Your task to perform on an android device: Search for vegetarian restaurants on Maps Image 0: 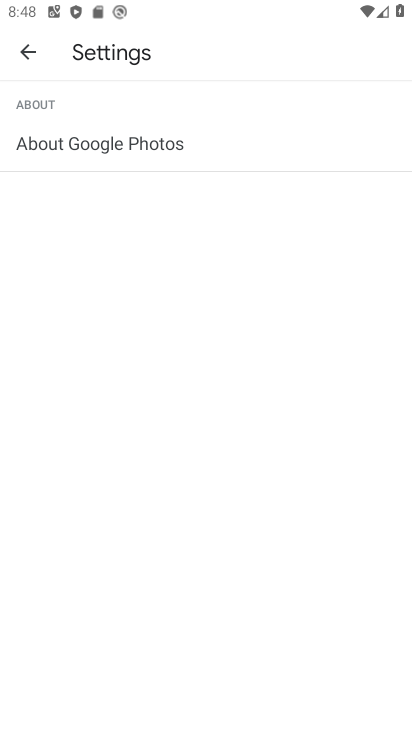
Step 0: press home button
Your task to perform on an android device: Search for vegetarian restaurants on Maps Image 1: 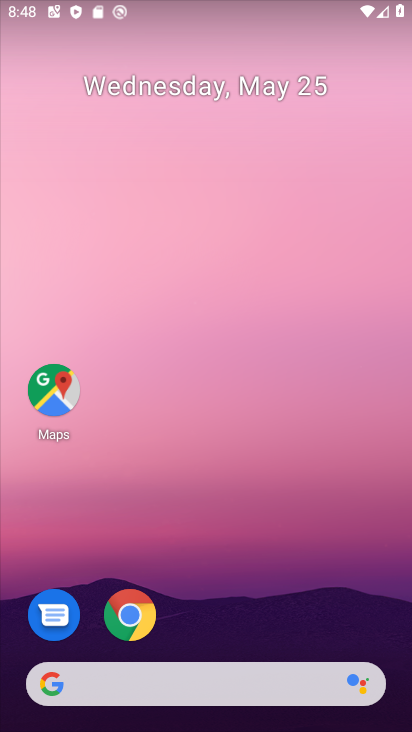
Step 1: click (49, 383)
Your task to perform on an android device: Search for vegetarian restaurants on Maps Image 2: 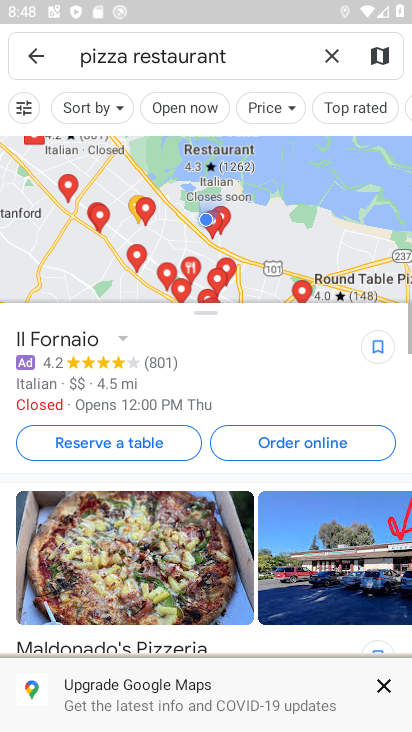
Step 2: click (338, 57)
Your task to perform on an android device: Search for vegetarian restaurants on Maps Image 3: 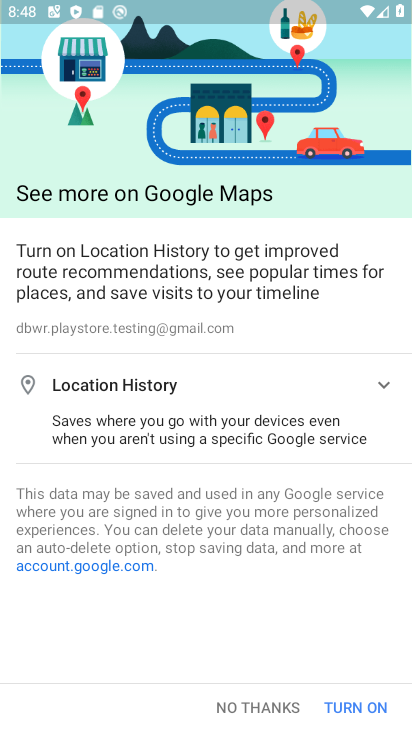
Step 3: click (255, 711)
Your task to perform on an android device: Search for vegetarian restaurants on Maps Image 4: 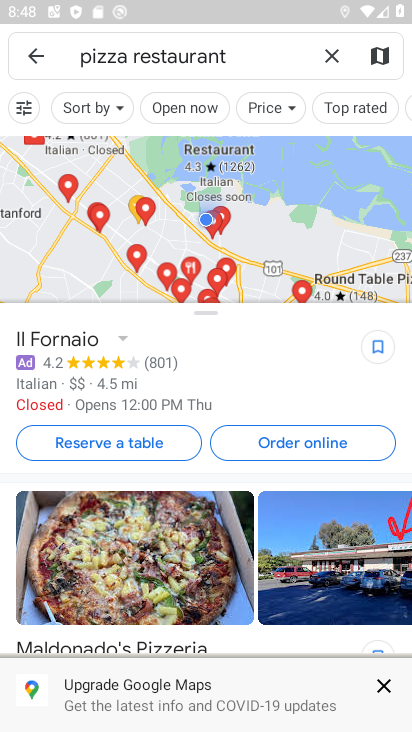
Step 4: click (337, 49)
Your task to perform on an android device: Search for vegetarian restaurants on Maps Image 5: 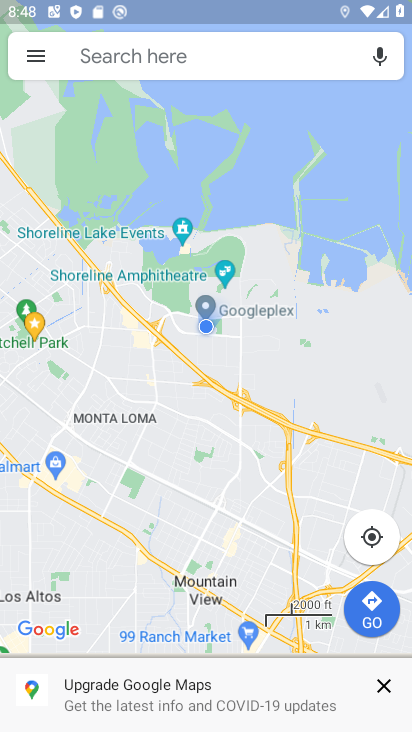
Step 5: click (269, 62)
Your task to perform on an android device: Search for vegetarian restaurants on Maps Image 6: 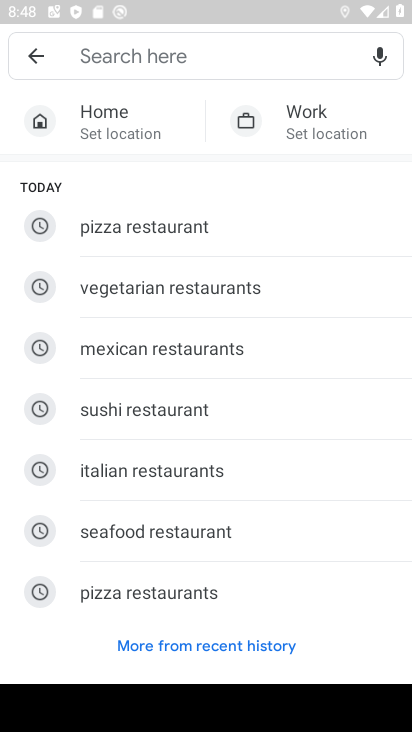
Step 6: click (241, 283)
Your task to perform on an android device: Search for vegetarian restaurants on Maps Image 7: 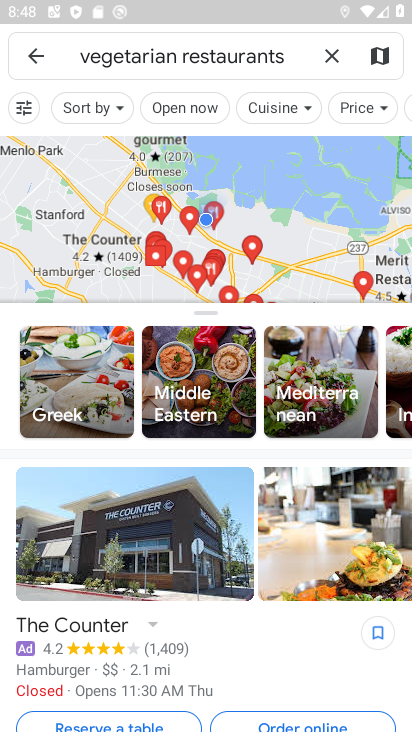
Step 7: task complete